Your task to perform on an android device: open chrome and create a bookmark for the current page Image 0: 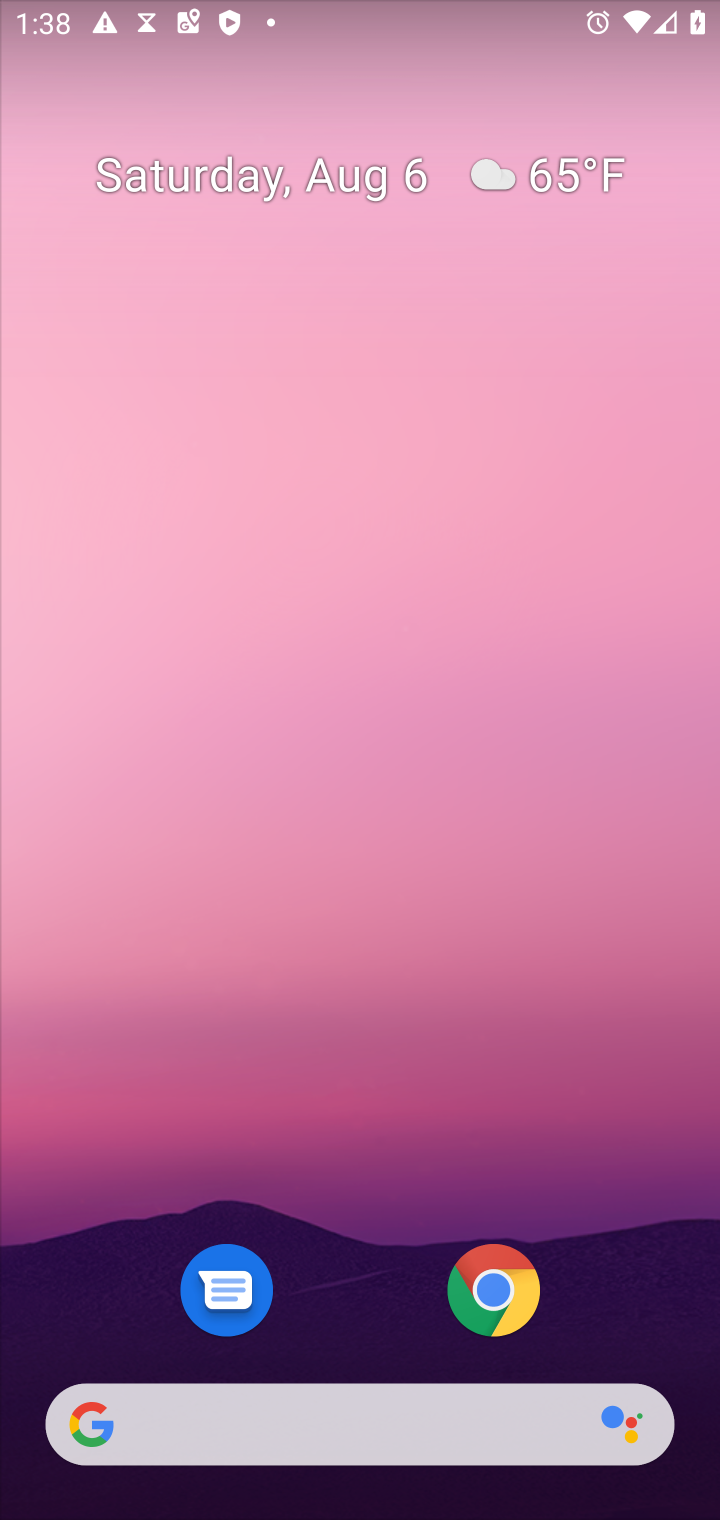
Step 0: click (507, 1287)
Your task to perform on an android device: open chrome and create a bookmark for the current page Image 1: 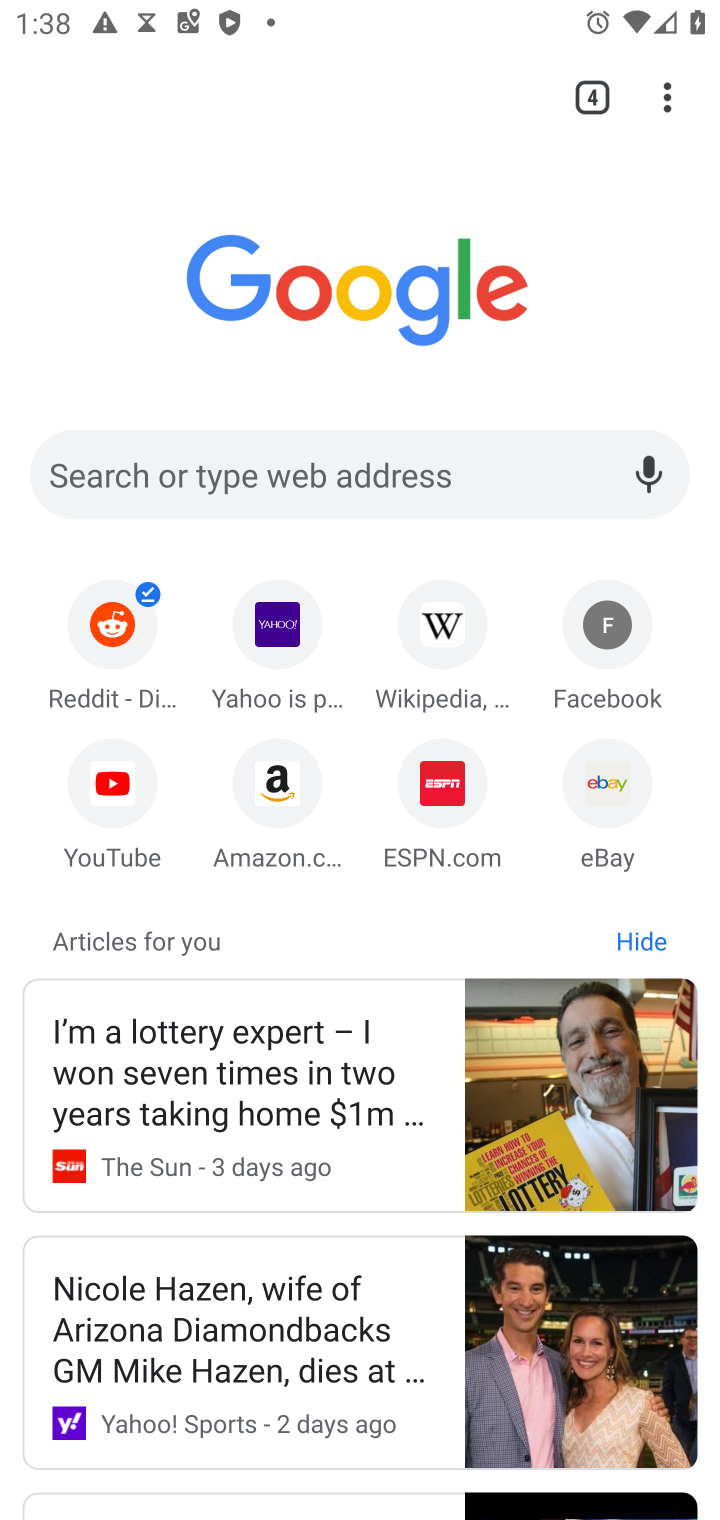
Step 1: click (657, 92)
Your task to perform on an android device: open chrome and create a bookmark for the current page Image 2: 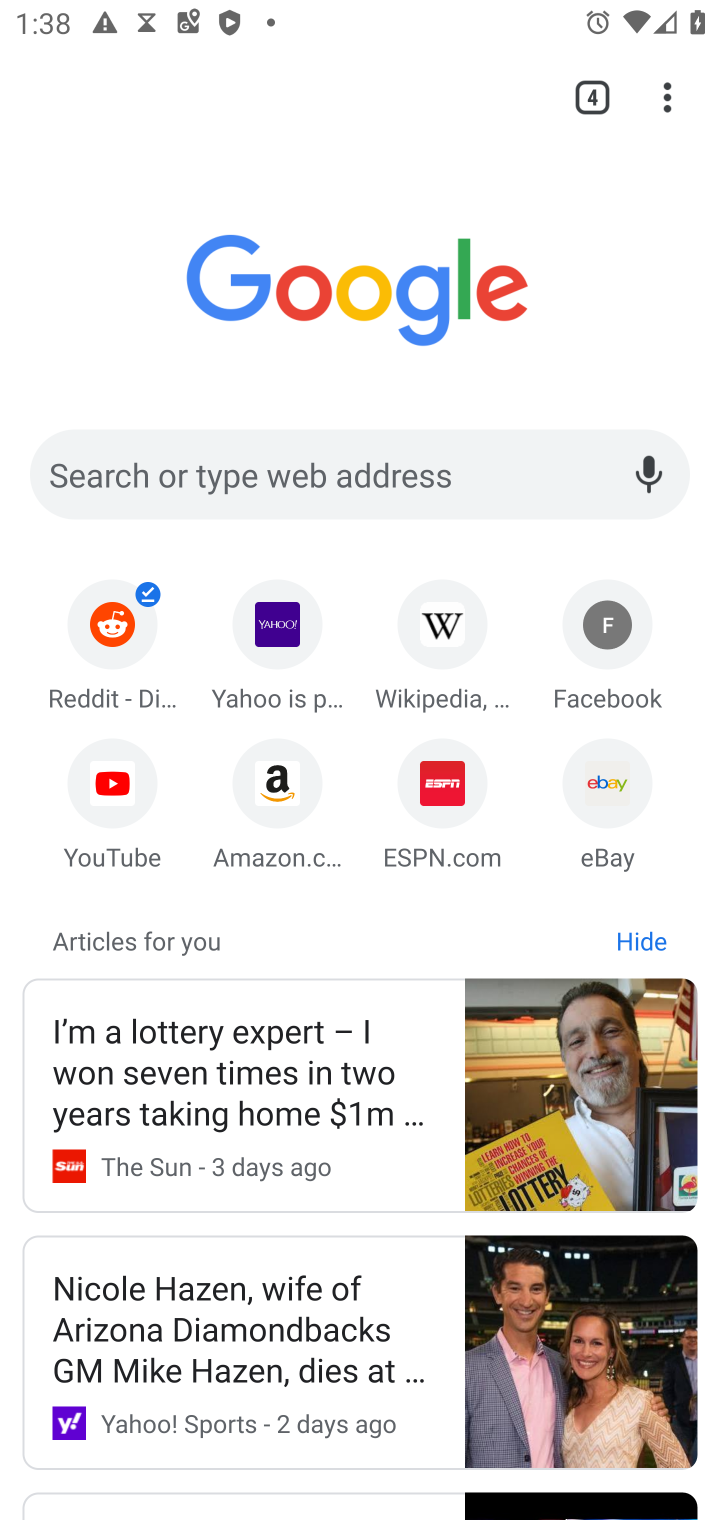
Step 2: click (660, 84)
Your task to perform on an android device: open chrome and create a bookmark for the current page Image 3: 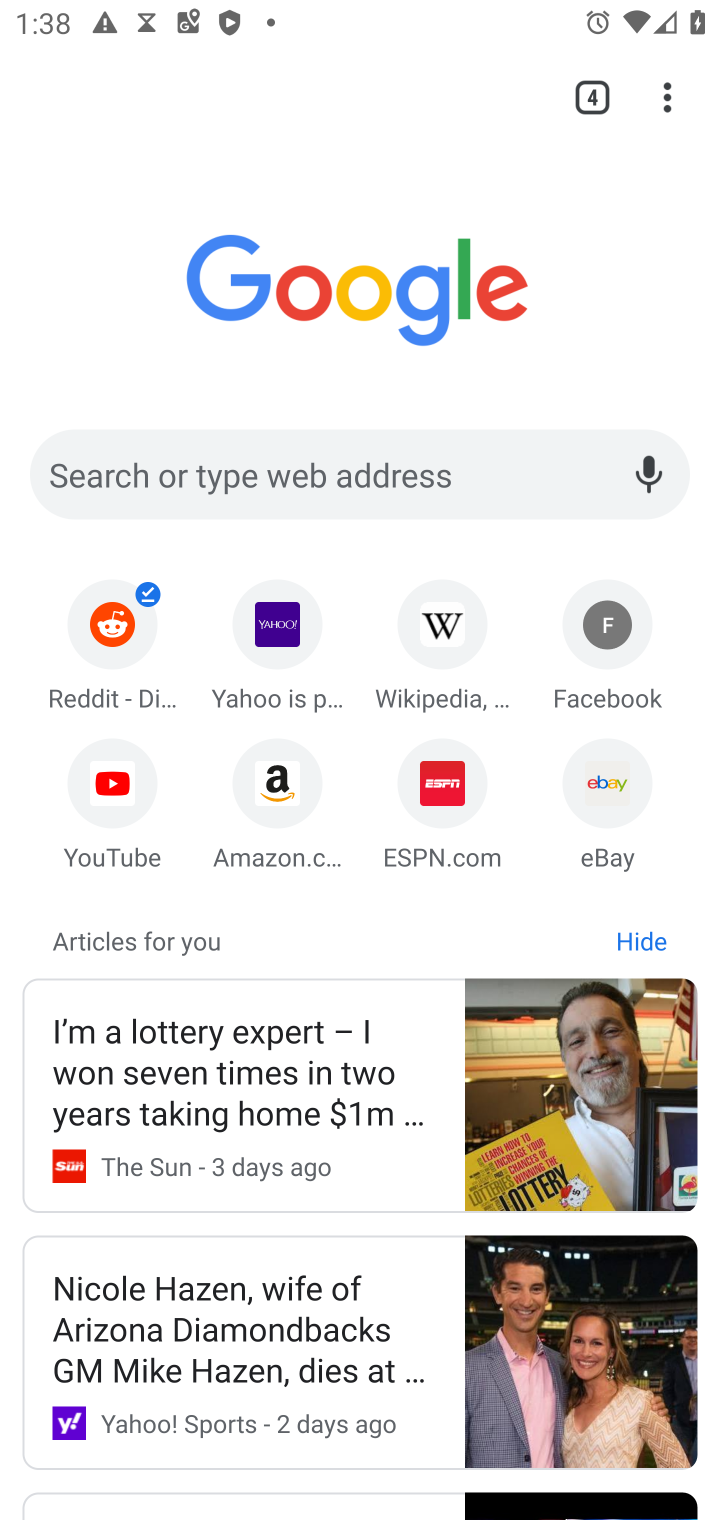
Step 3: click (670, 95)
Your task to perform on an android device: open chrome and create a bookmark for the current page Image 4: 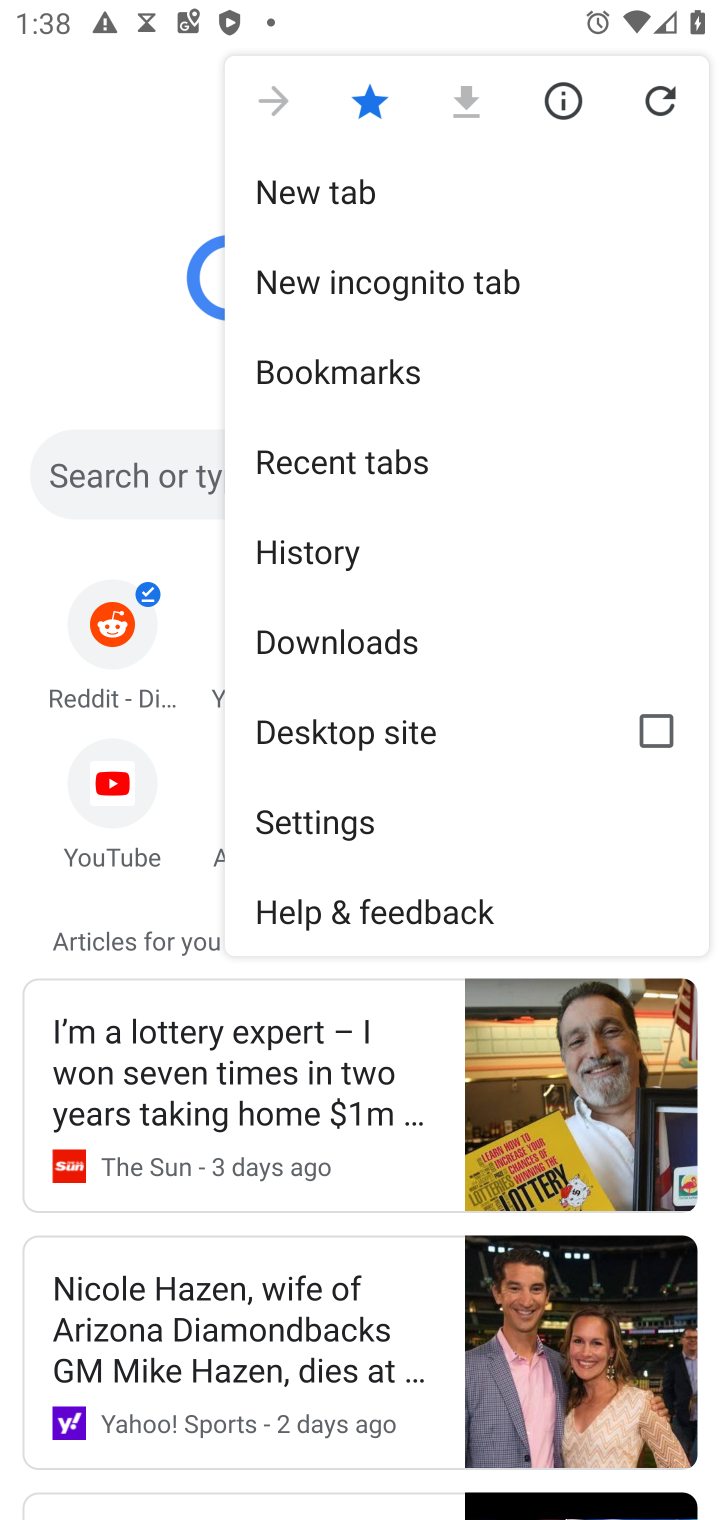
Step 4: task complete